Your task to perform on an android device: move an email to a new category in the gmail app Image 0: 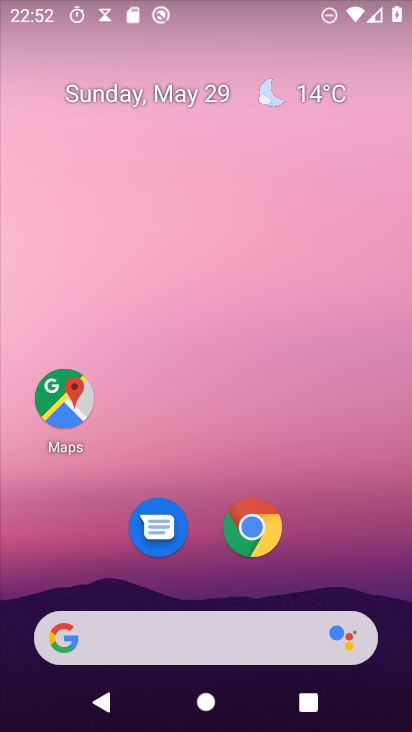
Step 0: press home button
Your task to perform on an android device: move an email to a new category in the gmail app Image 1: 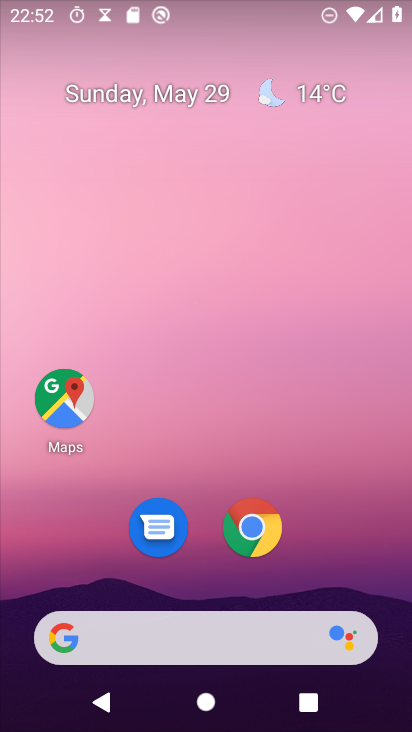
Step 1: drag from (259, 639) to (352, 151)
Your task to perform on an android device: move an email to a new category in the gmail app Image 2: 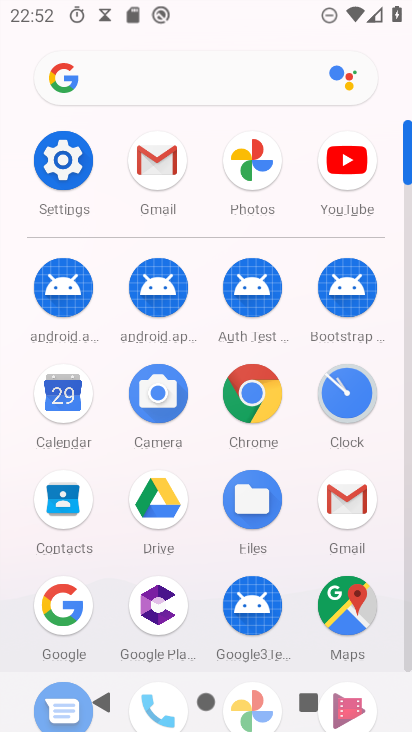
Step 2: click (150, 167)
Your task to perform on an android device: move an email to a new category in the gmail app Image 3: 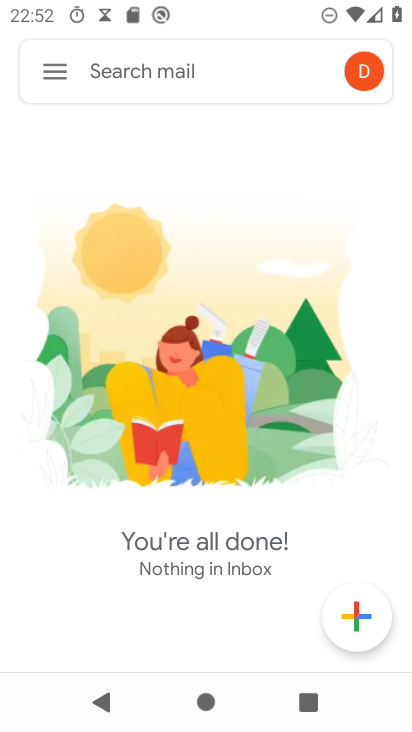
Step 3: task complete